Your task to perform on an android device: change the clock display to digital Image 0: 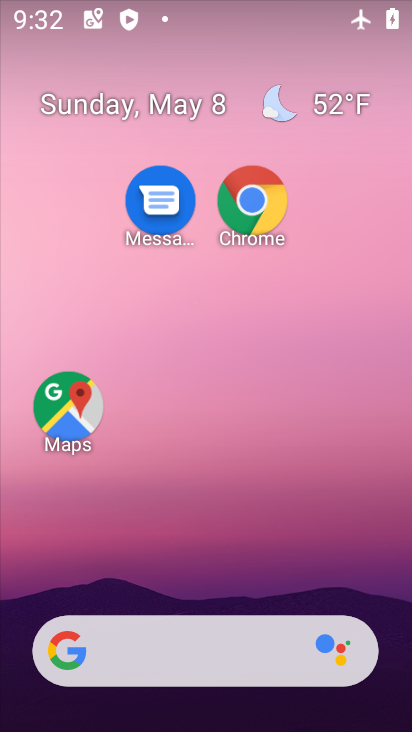
Step 0: drag from (222, 608) to (384, 81)
Your task to perform on an android device: change the clock display to digital Image 1: 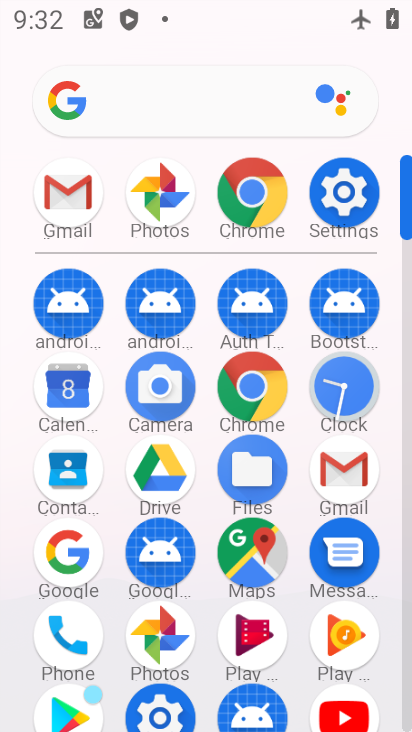
Step 1: click (354, 387)
Your task to perform on an android device: change the clock display to digital Image 2: 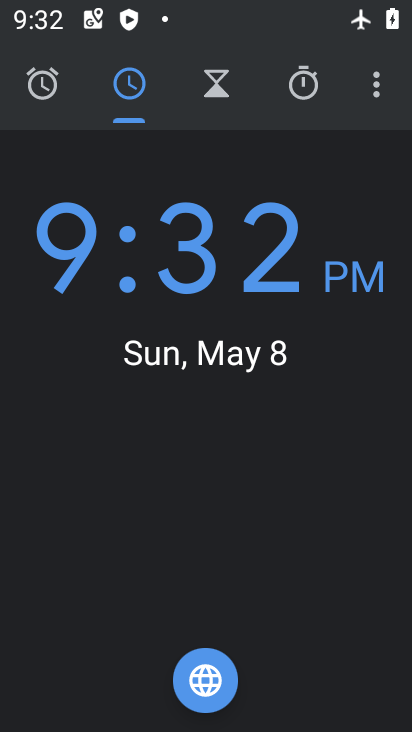
Step 2: click (371, 82)
Your task to perform on an android device: change the clock display to digital Image 3: 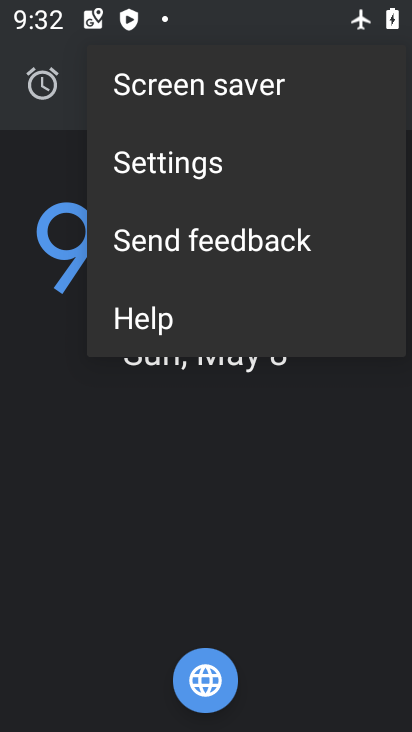
Step 3: click (167, 181)
Your task to perform on an android device: change the clock display to digital Image 4: 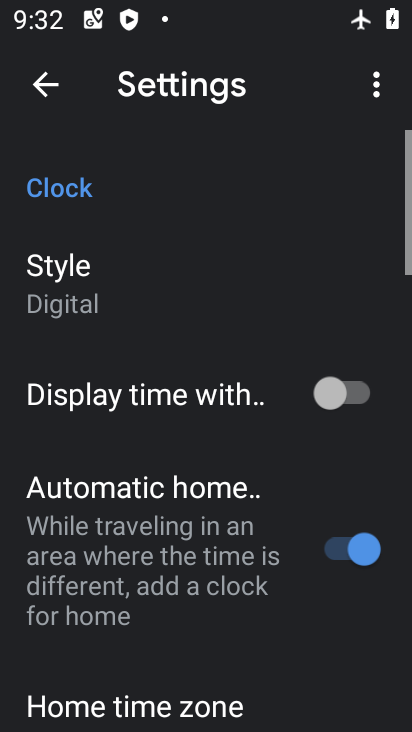
Step 4: click (88, 278)
Your task to perform on an android device: change the clock display to digital Image 5: 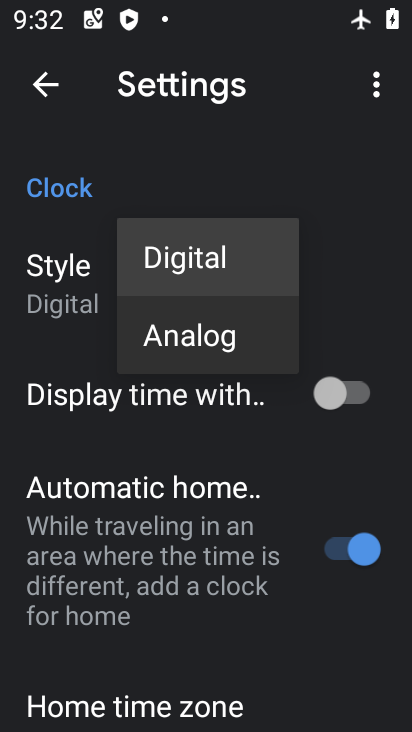
Step 5: click (178, 262)
Your task to perform on an android device: change the clock display to digital Image 6: 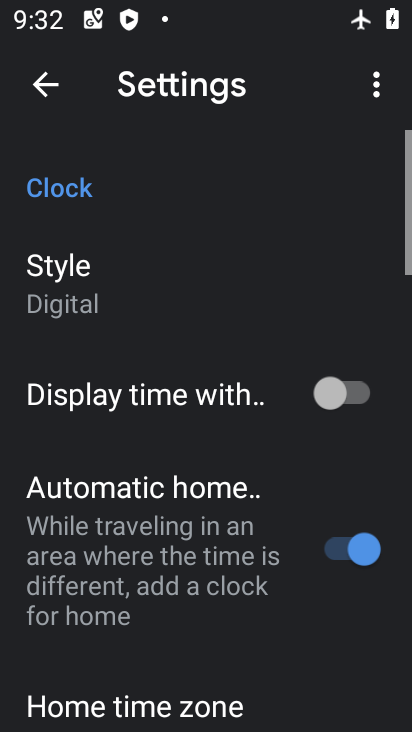
Step 6: task complete